Your task to perform on an android device: toggle data saver in the chrome app Image 0: 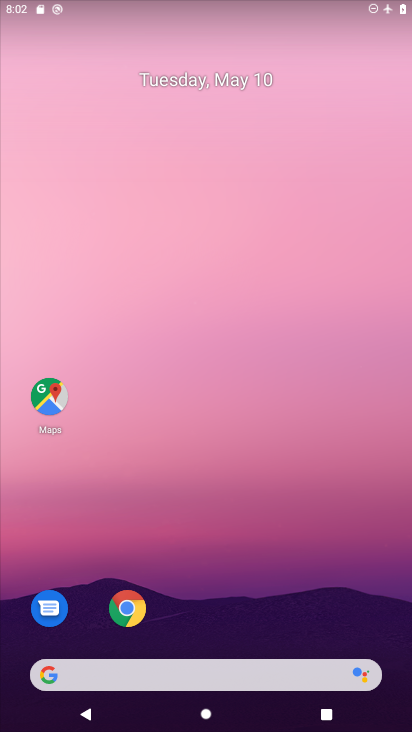
Step 0: drag from (216, 600) to (234, 281)
Your task to perform on an android device: toggle data saver in the chrome app Image 1: 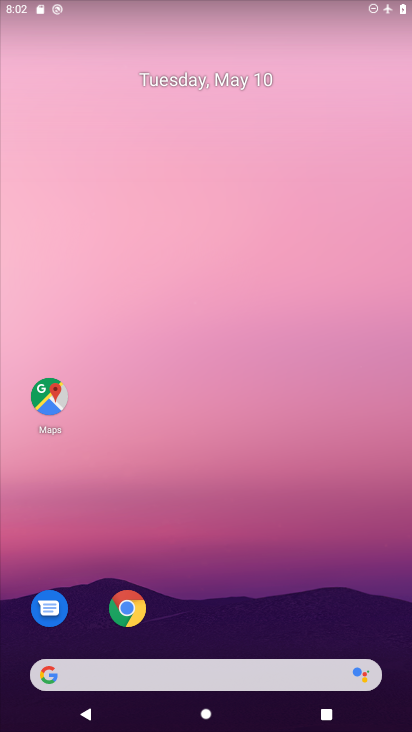
Step 1: drag from (254, 577) to (244, 205)
Your task to perform on an android device: toggle data saver in the chrome app Image 2: 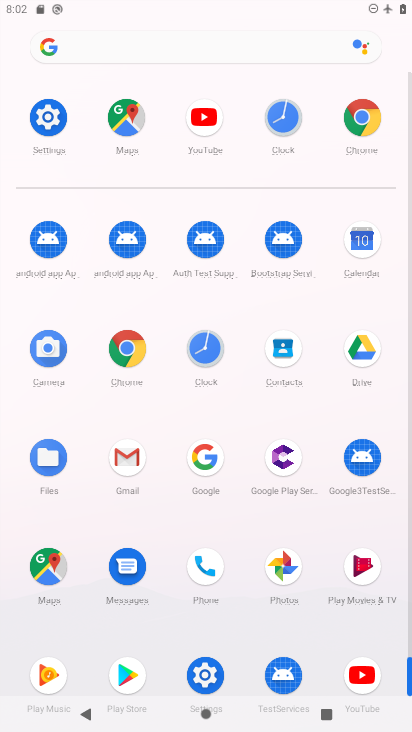
Step 2: click (364, 124)
Your task to perform on an android device: toggle data saver in the chrome app Image 3: 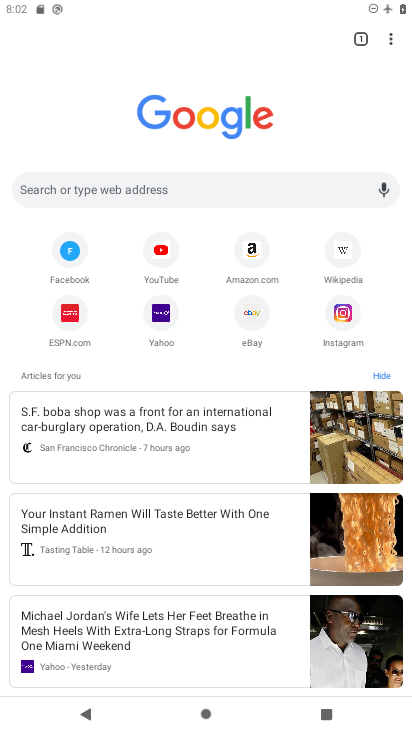
Step 3: click (382, 34)
Your task to perform on an android device: toggle data saver in the chrome app Image 4: 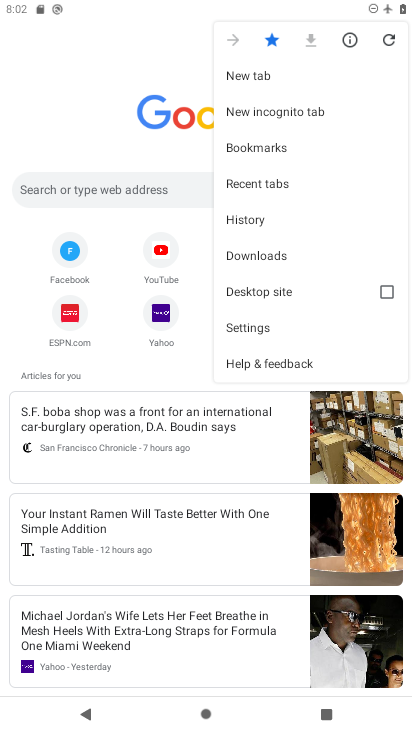
Step 4: click (263, 324)
Your task to perform on an android device: toggle data saver in the chrome app Image 5: 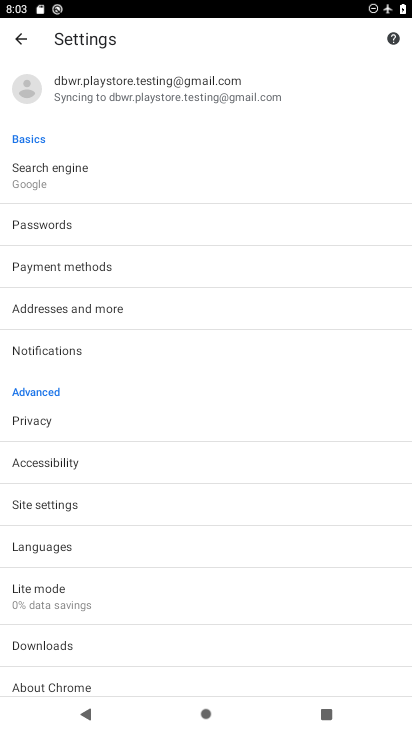
Step 5: click (63, 597)
Your task to perform on an android device: toggle data saver in the chrome app Image 6: 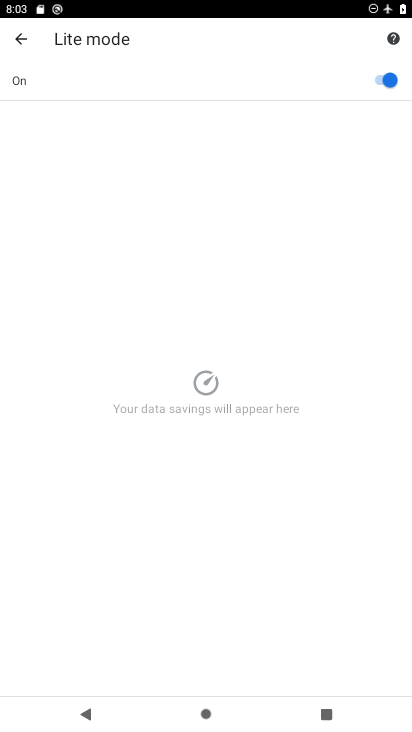
Step 6: click (379, 68)
Your task to perform on an android device: toggle data saver in the chrome app Image 7: 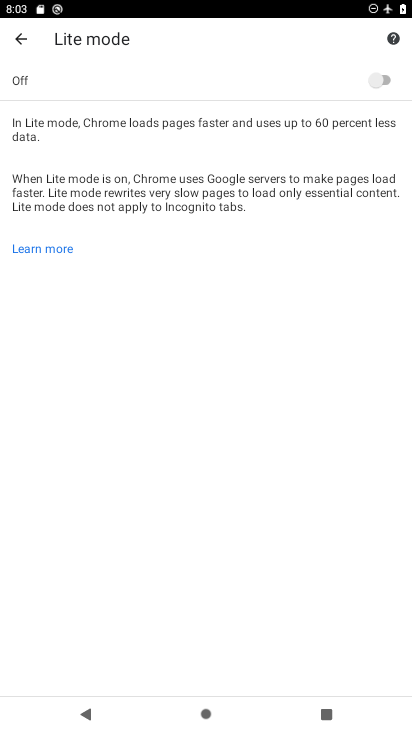
Step 7: task complete